Your task to perform on an android device: Open Chrome and go to the settings page Image 0: 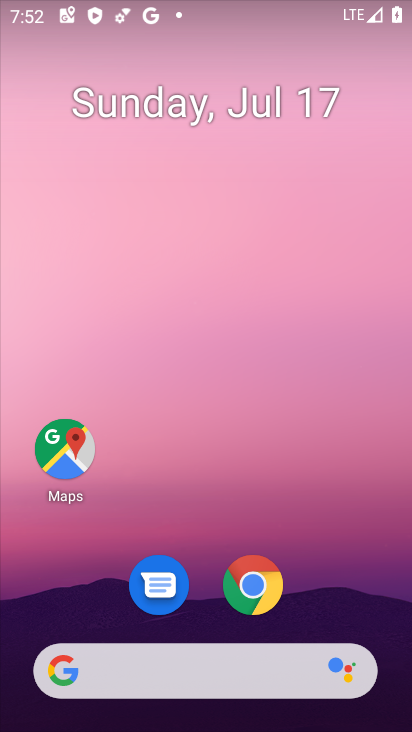
Step 0: drag from (331, 577) to (268, 106)
Your task to perform on an android device: Open Chrome and go to the settings page Image 1: 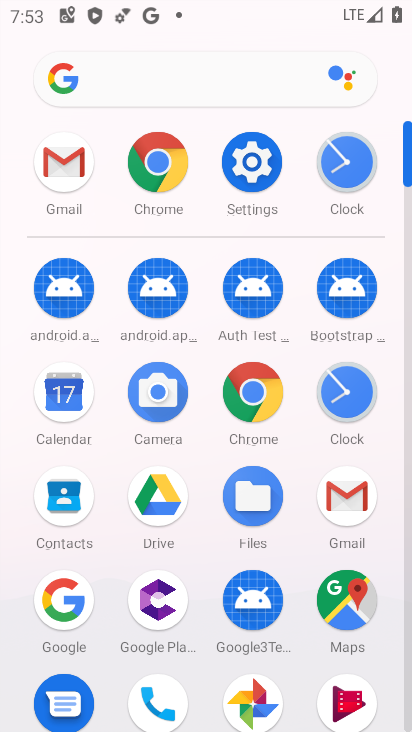
Step 1: click (269, 396)
Your task to perform on an android device: Open Chrome and go to the settings page Image 2: 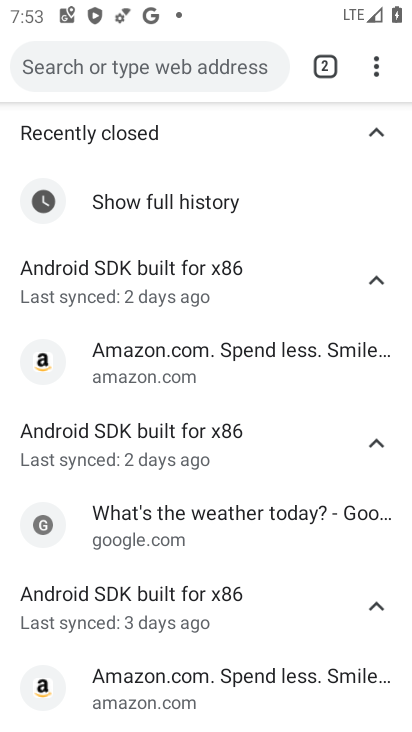
Step 2: click (376, 62)
Your task to perform on an android device: Open Chrome and go to the settings page Image 3: 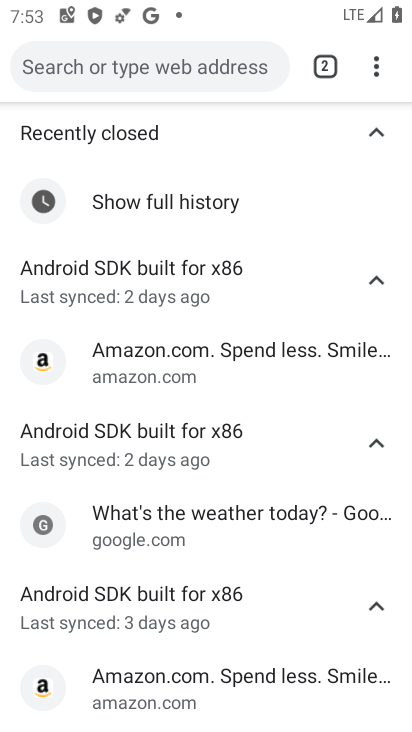
Step 3: click (376, 62)
Your task to perform on an android device: Open Chrome and go to the settings page Image 4: 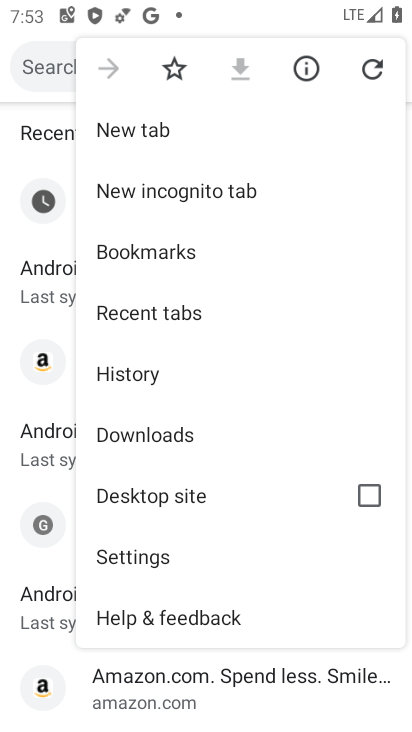
Step 4: click (161, 555)
Your task to perform on an android device: Open Chrome and go to the settings page Image 5: 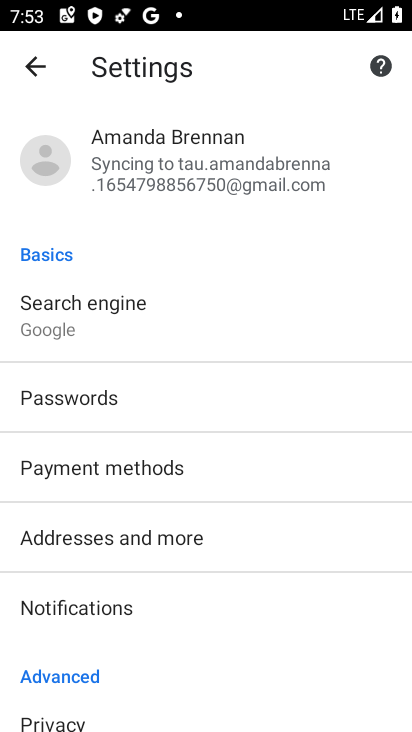
Step 5: task complete